Your task to perform on an android device: turn notification dots on Image 0: 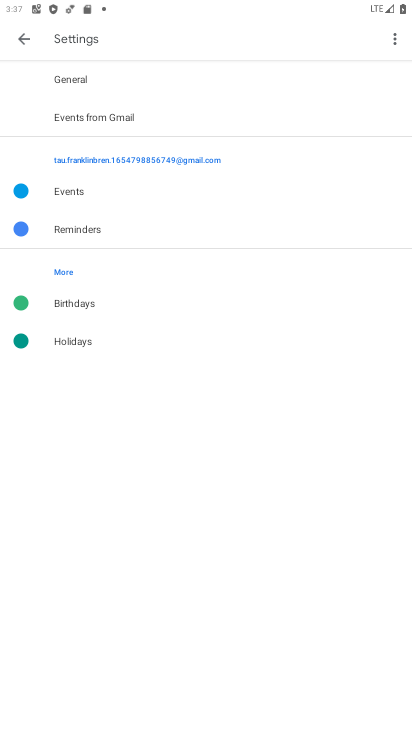
Step 0: press home button
Your task to perform on an android device: turn notification dots on Image 1: 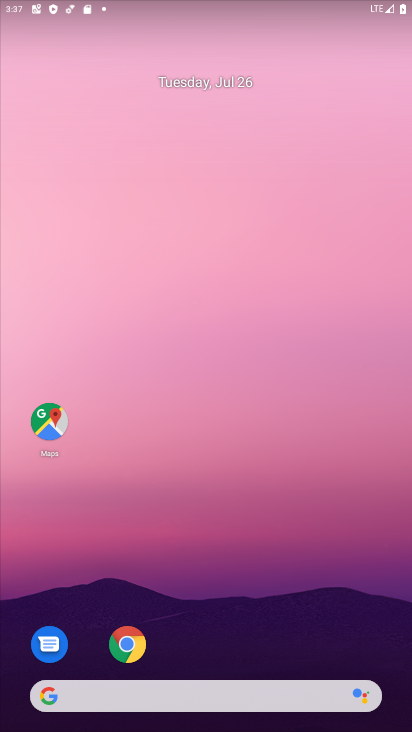
Step 1: drag from (169, 680) to (168, 180)
Your task to perform on an android device: turn notification dots on Image 2: 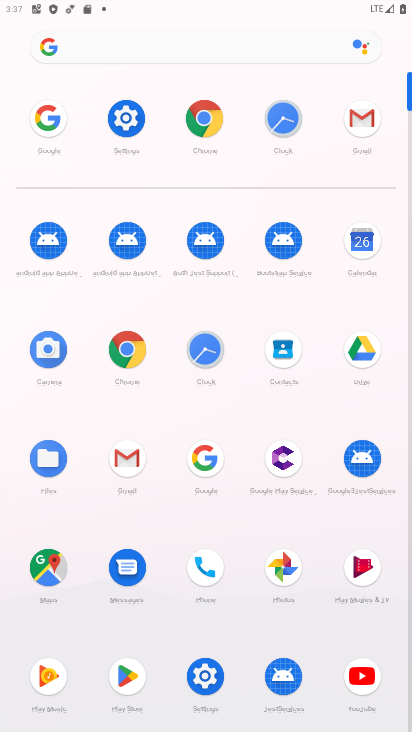
Step 2: click (127, 117)
Your task to perform on an android device: turn notification dots on Image 3: 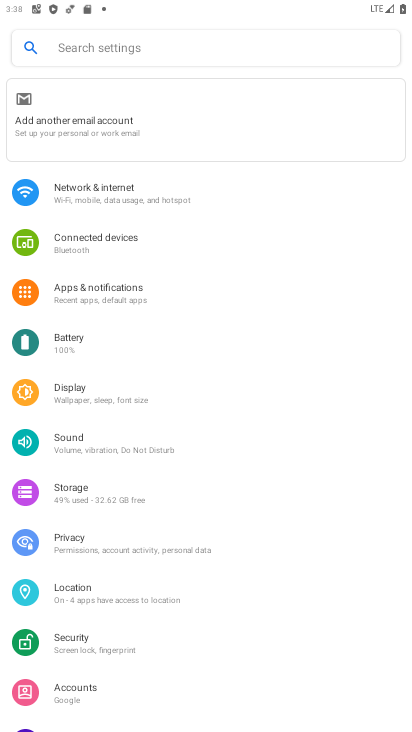
Step 3: click (77, 289)
Your task to perform on an android device: turn notification dots on Image 4: 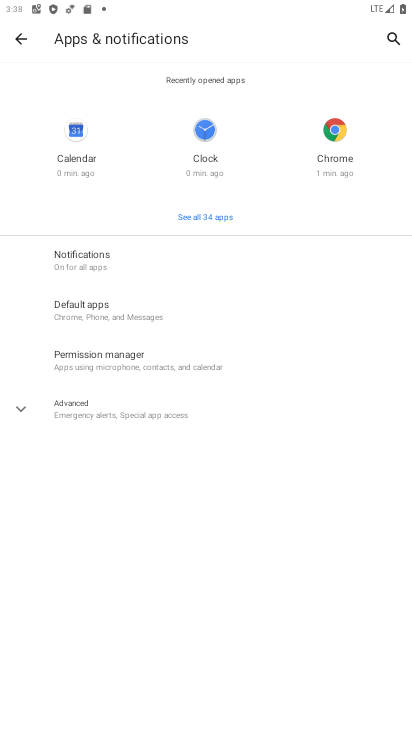
Step 4: click (140, 416)
Your task to perform on an android device: turn notification dots on Image 5: 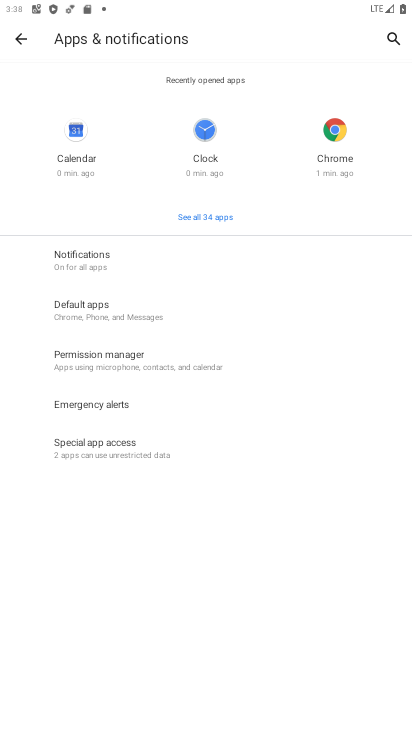
Step 5: click (78, 259)
Your task to perform on an android device: turn notification dots on Image 6: 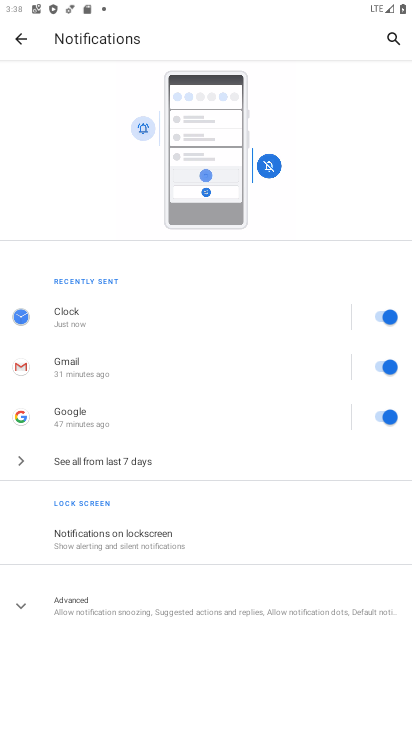
Step 6: click (92, 600)
Your task to perform on an android device: turn notification dots on Image 7: 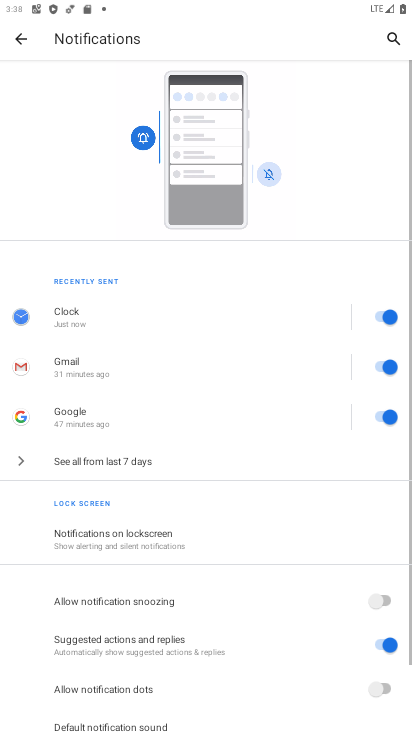
Step 7: drag from (174, 674) to (134, 277)
Your task to perform on an android device: turn notification dots on Image 8: 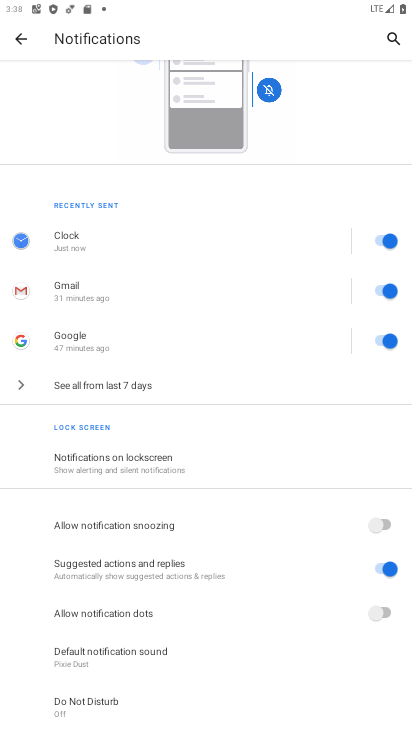
Step 8: click (383, 610)
Your task to perform on an android device: turn notification dots on Image 9: 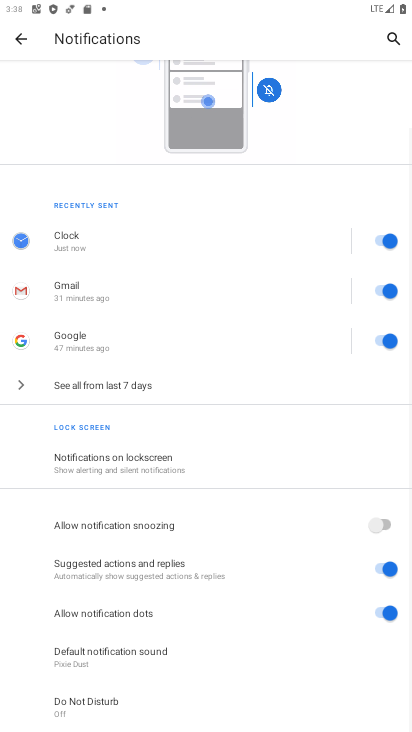
Step 9: task complete